Your task to perform on an android device: Play the last video I watched on Youtube Image 0: 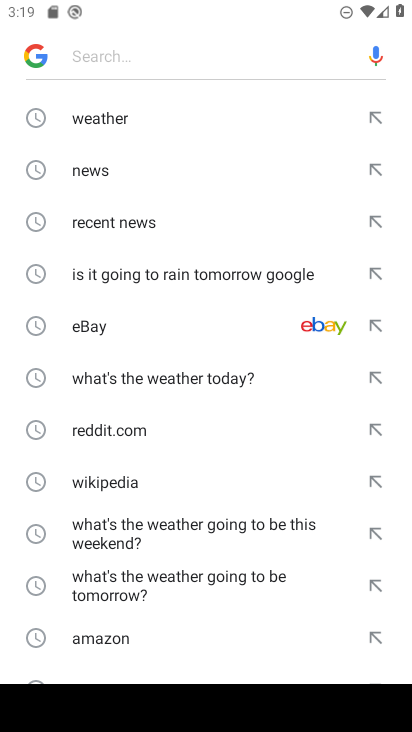
Step 0: press home button
Your task to perform on an android device: Play the last video I watched on Youtube Image 1: 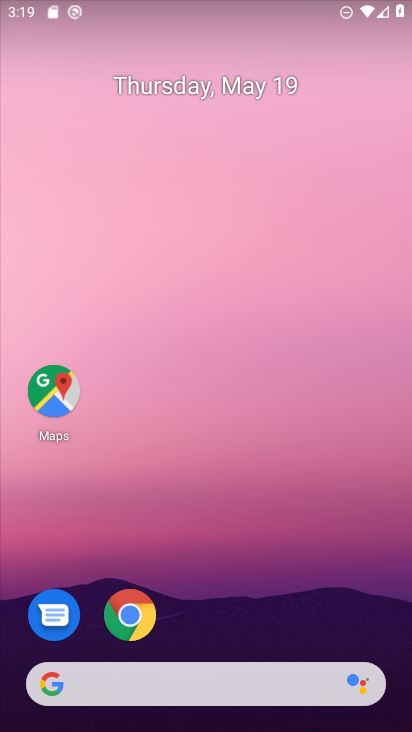
Step 1: drag from (219, 605) to (162, 306)
Your task to perform on an android device: Play the last video I watched on Youtube Image 2: 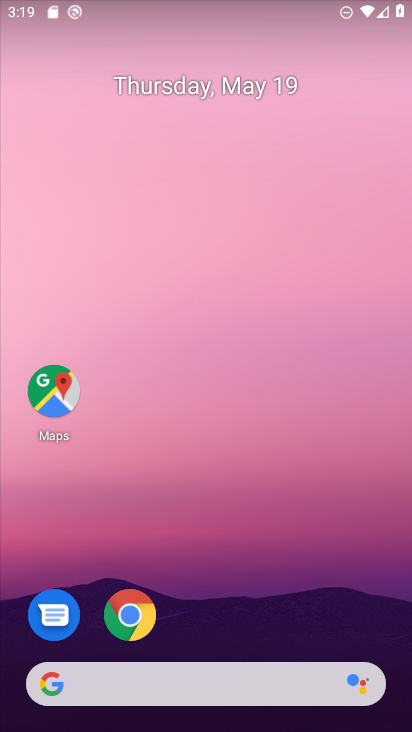
Step 2: drag from (286, 607) to (220, 269)
Your task to perform on an android device: Play the last video I watched on Youtube Image 3: 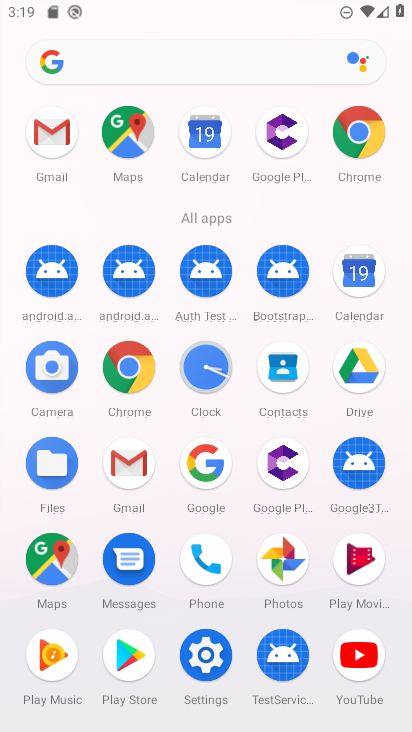
Step 3: click (361, 658)
Your task to perform on an android device: Play the last video I watched on Youtube Image 4: 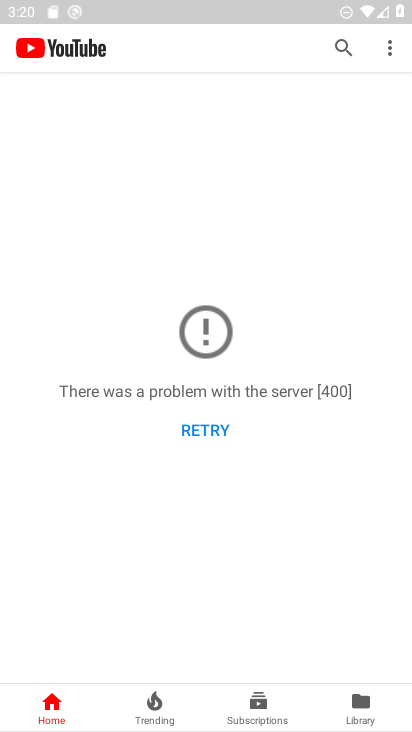
Step 4: click (364, 703)
Your task to perform on an android device: Play the last video I watched on Youtube Image 5: 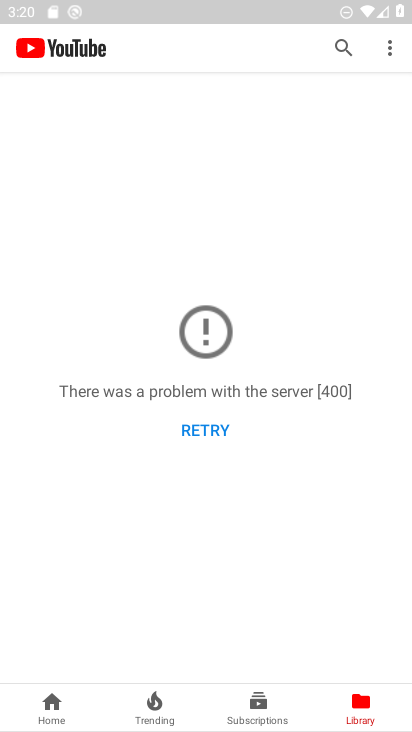
Step 5: task complete